Your task to perform on an android device: all mails in gmail Image 0: 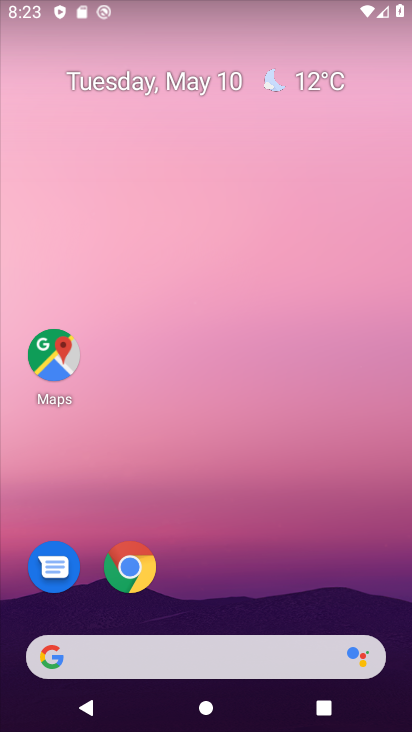
Step 0: drag from (170, 631) to (200, 202)
Your task to perform on an android device: all mails in gmail Image 1: 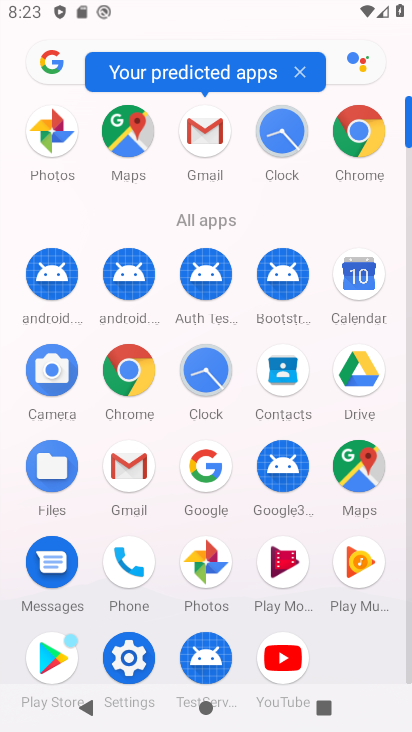
Step 1: click (214, 146)
Your task to perform on an android device: all mails in gmail Image 2: 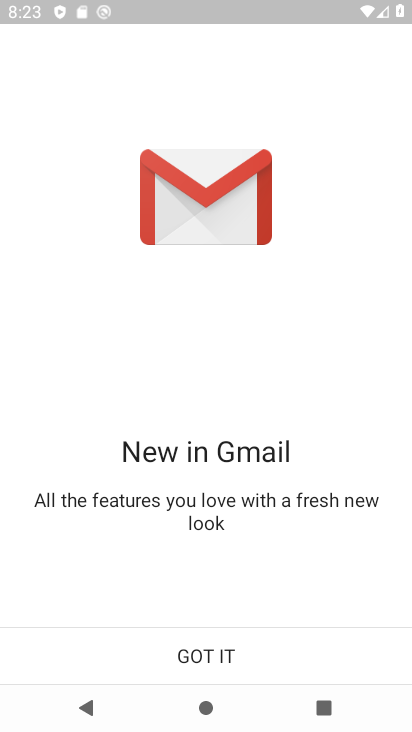
Step 2: click (201, 649)
Your task to perform on an android device: all mails in gmail Image 3: 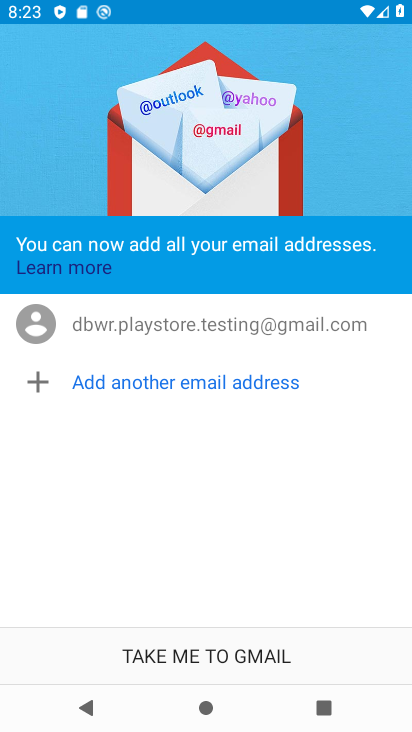
Step 3: click (161, 645)
Your task to perform on an android device: all mails in gmail Image 4: 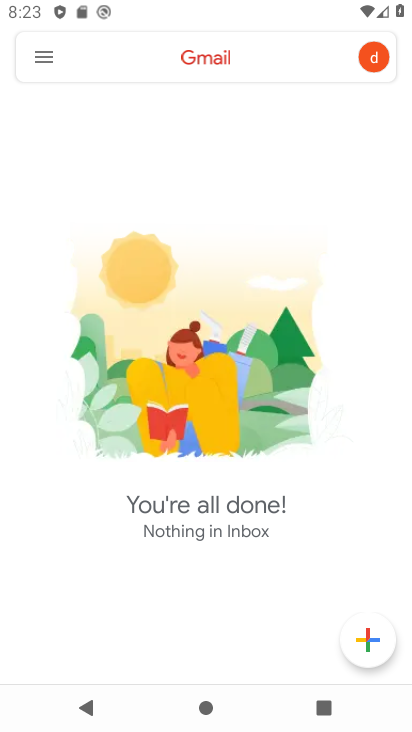
Step 4: click (48, 52)
Your task to perform on an android device: all mails in gmail Image 5: 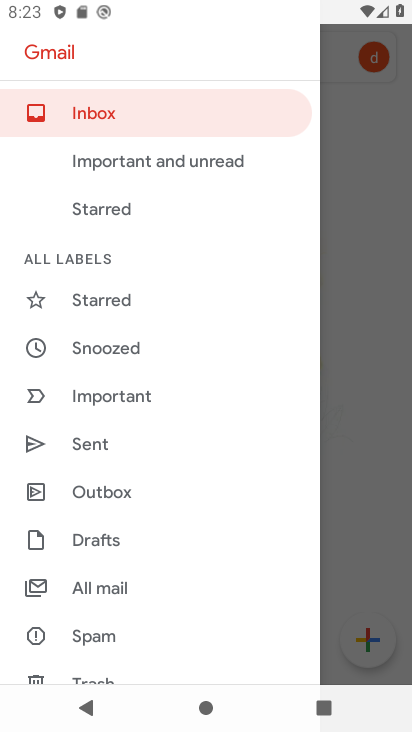
Step 5: click (110, 592)
Your task to perform on an android device: all mails in gmail Image 6: 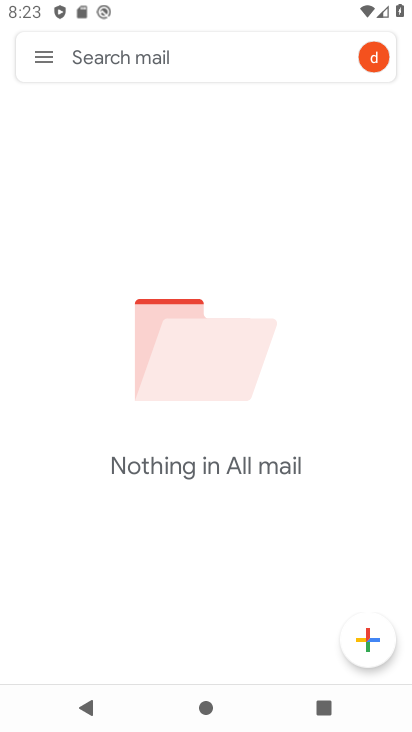
Step 6: task complete